Your task to perform on an android device: Search for sushi restaurants on Maps Image 0: 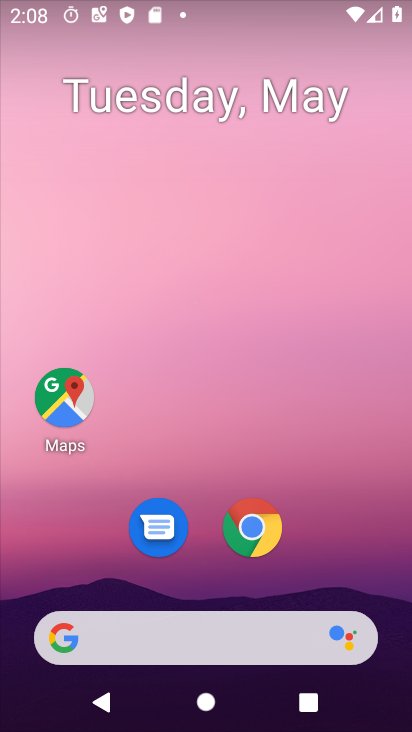
Step 0: drag from (267, 666) to (202, 243)
Your task to perform on an android device: Search for sushi restaurants on Maps Image 1: 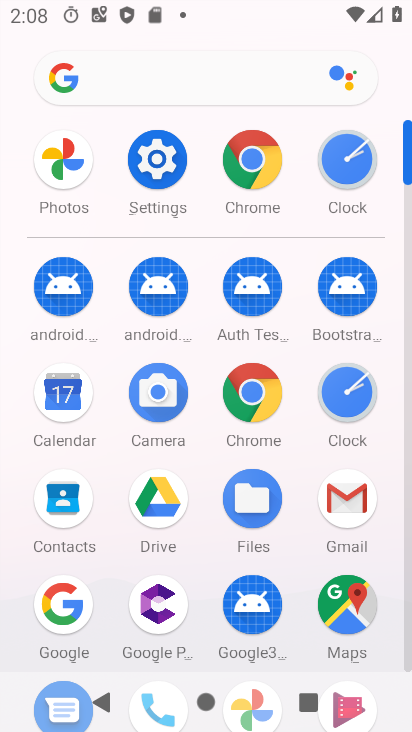
Step 1: click (337, 613)
Your task to perform on an android device: Search for sushi restaurants on Maps Image 2: 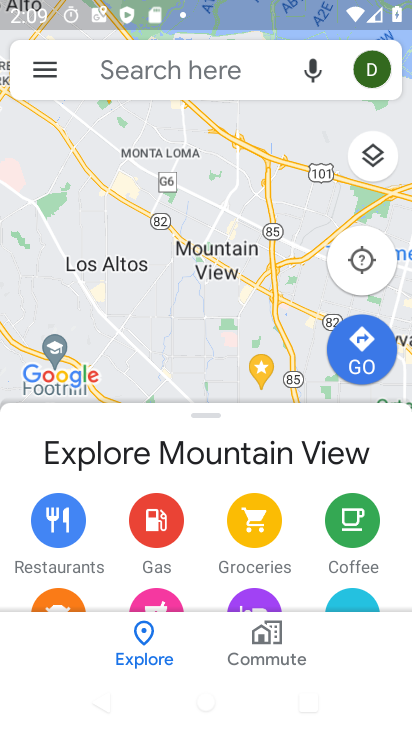
Step 2: click (167, 64)
Your task to perform on an android device: Search for sushi restaurants on Maps Image 3: 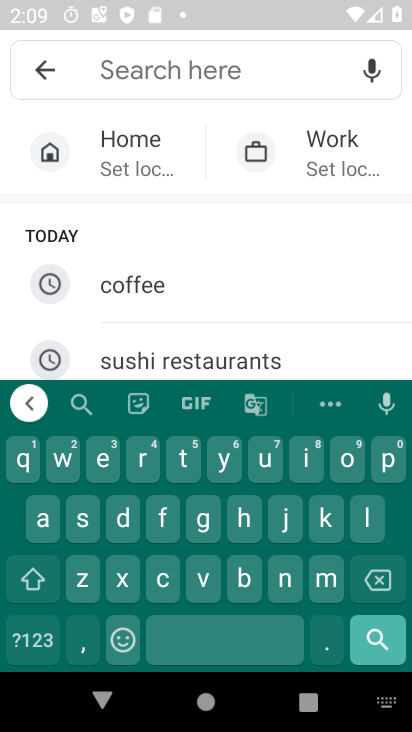
Step 3: click (87, 536)
Your task to perform on an android device: Search for sushi restaurants on Maps Image 4: 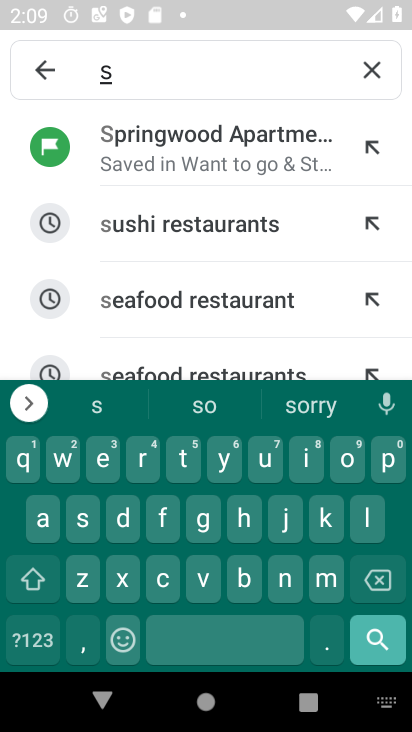
Step 4: click (261, 461)
Your task to perform on an android device: Search for sushi restaurants on Maps Image 5: 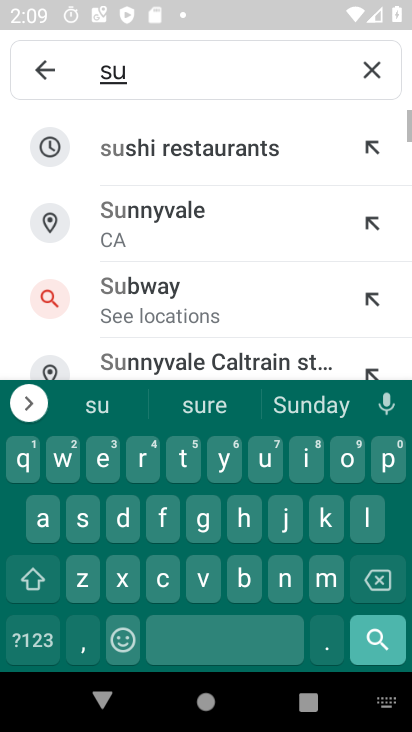
Step 5: click (175, 172)
Your task to perform on an android device: Search for sushi restaurants on Maps Image 6: 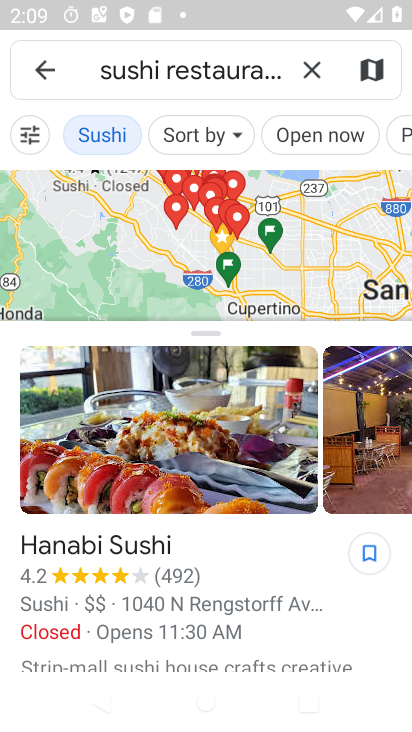
Step 6: click (136, 190)
Your task to perform on an android device: Search for sushi restaurants on Maps Image 7: 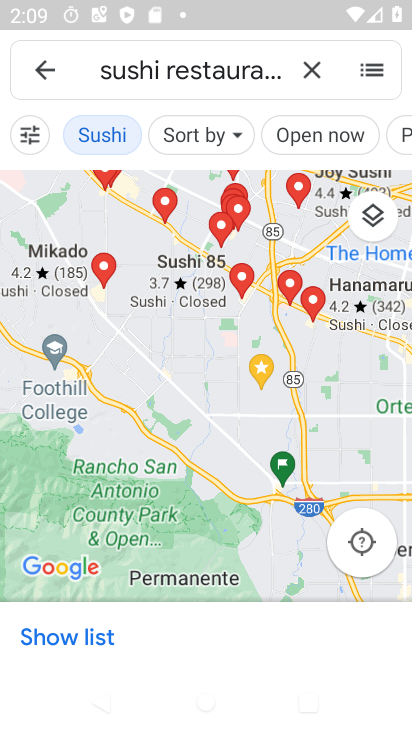
Step 7: task complete